Your task to perform on an android device: check android version Image 0: 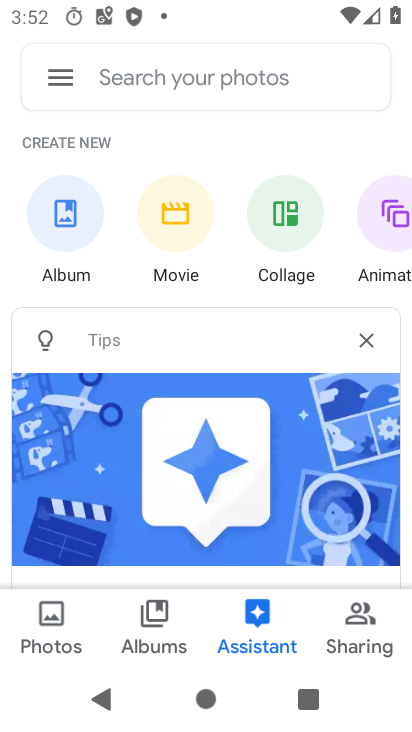
Step 0: press home button
Your task to perform on an android device: check android version Image 1: 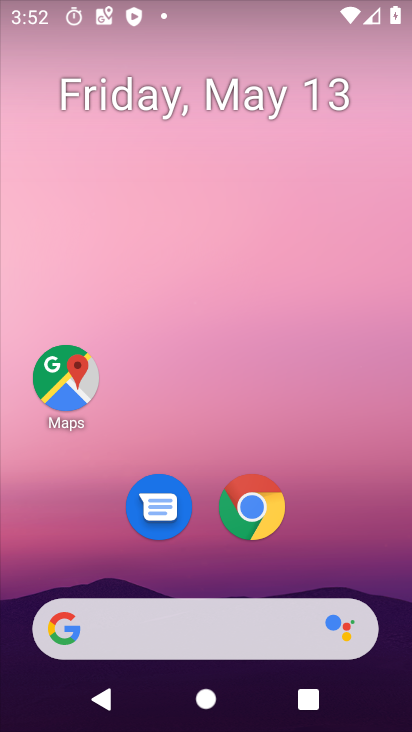
Step 1: drag from (225, 582) to (302, 161)
Your task to perform on an android device: check android version Image 2: 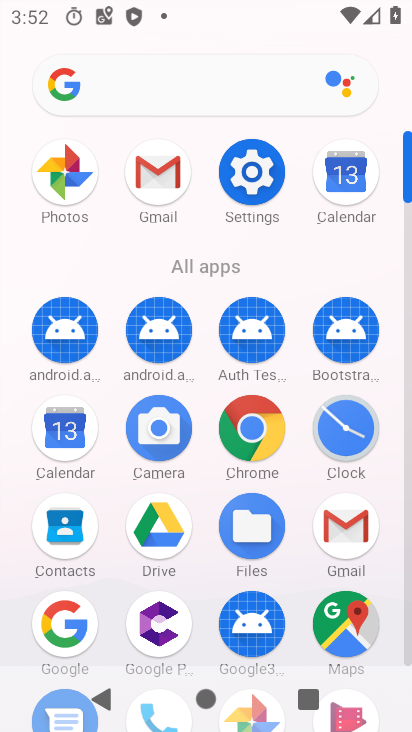
Step 2: click (251, 162)
Your task to perform on an android device: check android version Image 3: 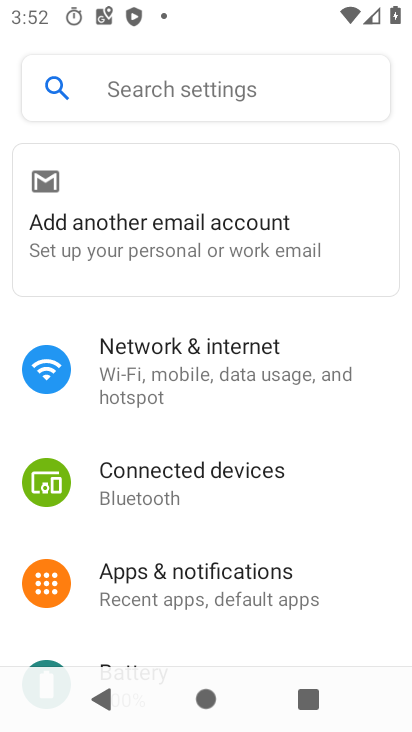
Step 3: drag from (230, 571) to (255, 90)
Your task to perform on an android device: check android version Image 4: 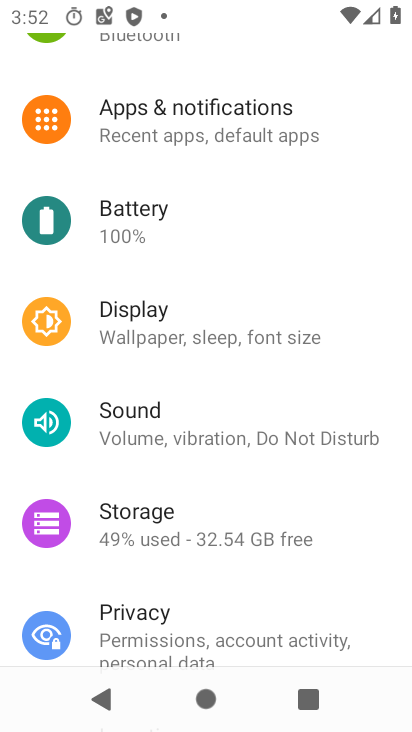
Step 4: drag from (247, 500) to (270, 110)
Your task to perform on an android device: check android version Image 5: 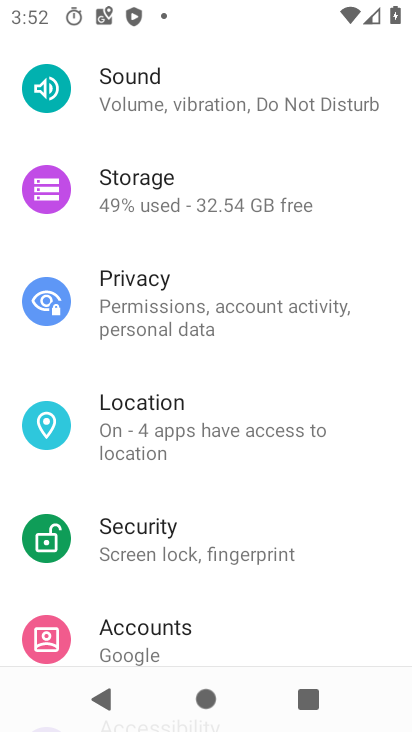
Step 5: drag from (247, 463) to (283, 141)
Your task to perform on an android device: check android version Image 6: 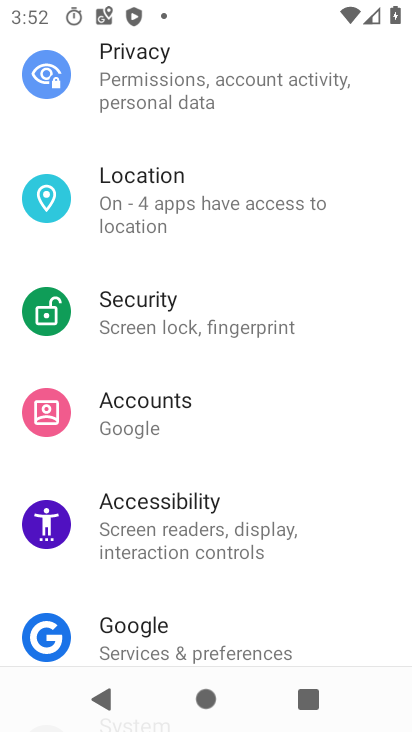
Step 6: drag from (308, 570) to (335, 134)
Your task to perform on an android device: check android version Image 7: 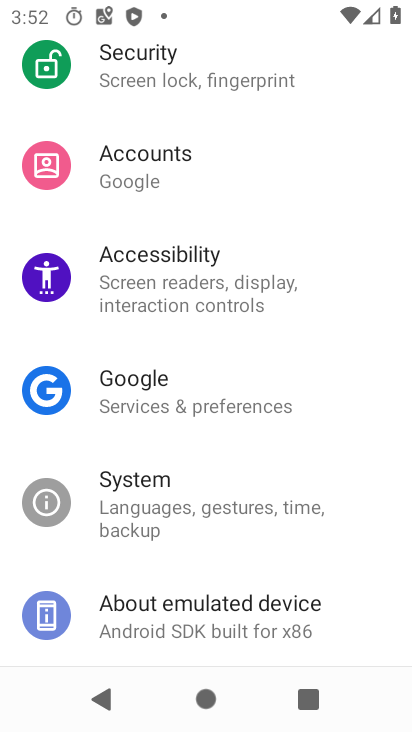
Step 7: drag from (284, 563) to (308, 226)
Your task to perform on an android device: check android version Image 8: 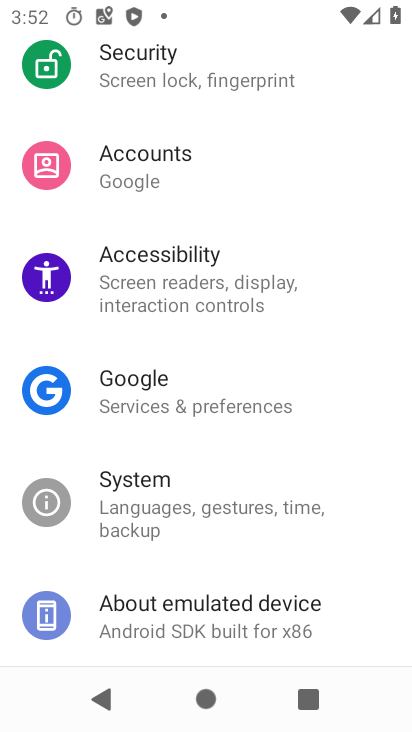
Step 8: click (252, 597)
Your task to perform on an android device: check android version Image 9: 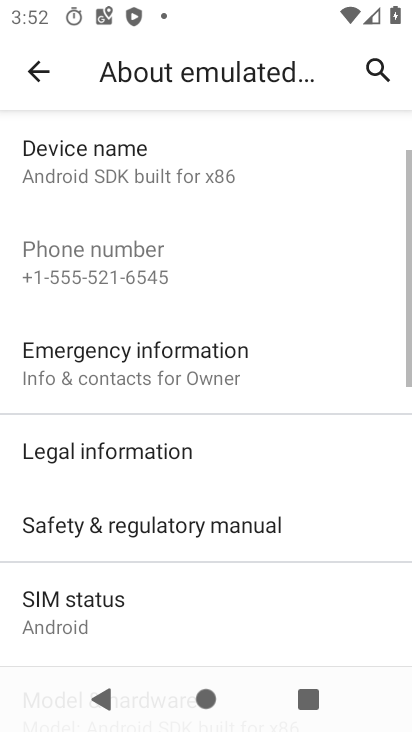
Step 9: task complete